Your task to perform on an android device: Open display settings Image 0: 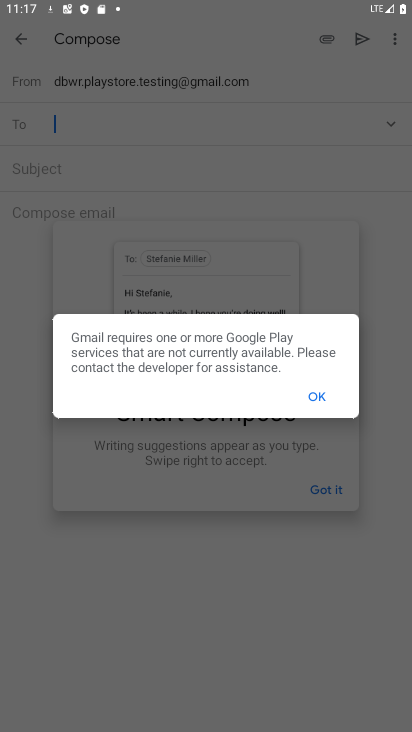
Step 0: press home button
Your task to perform on an android device: Open display settings Image 1: 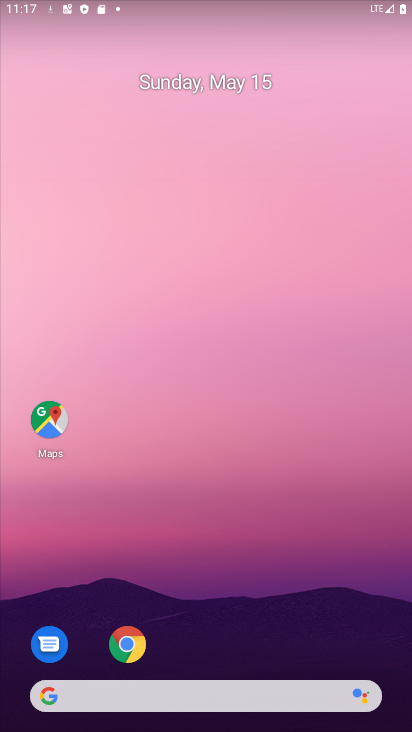
Step 1: drag from (245, 612) to (293, 255)
Your task to perform on an android device: Open display settings Image 2: 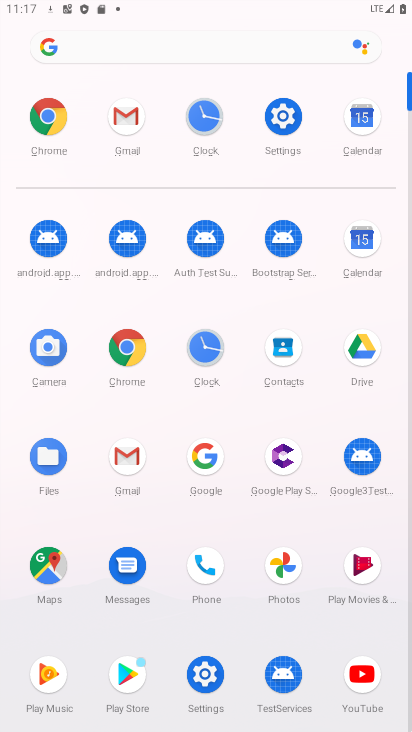
Step 2: click (214, 659)
Your task to perform on an android device: Open display settings Image 3: 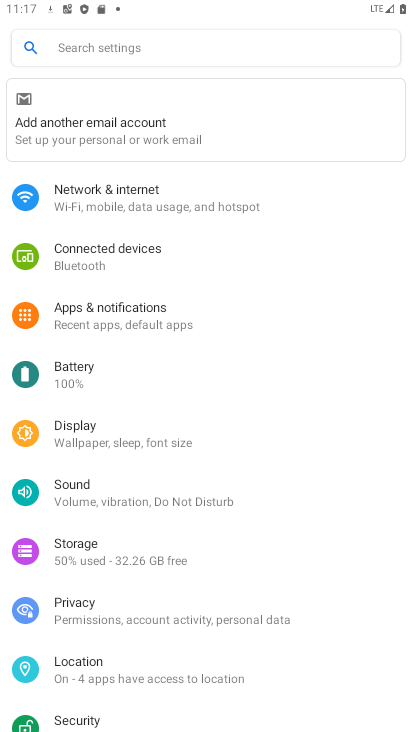
Step 3: click (87, 428)
Your task to perform on an android device: Open display settings Image 4: 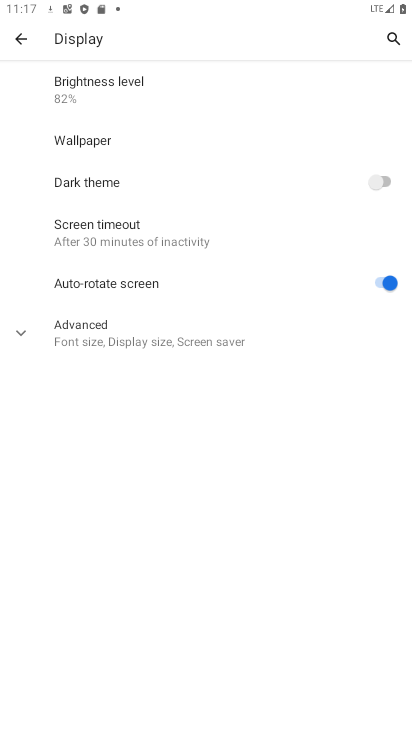
Step 4: task complete